Your task to perform on an android device: check android version Image 0: 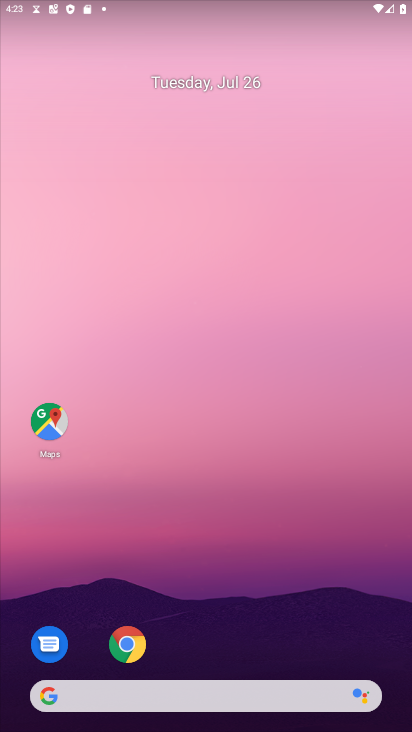
Step 0: drag from (225, 634) to (197, 49)
Your task to perform on an android device: check android version Image 1: 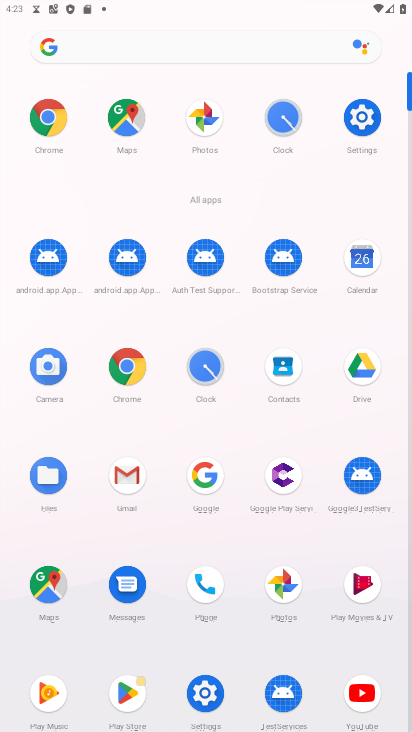
Step 1: click (363, 123)
Your task to perform on an android device: check android version Image 2: 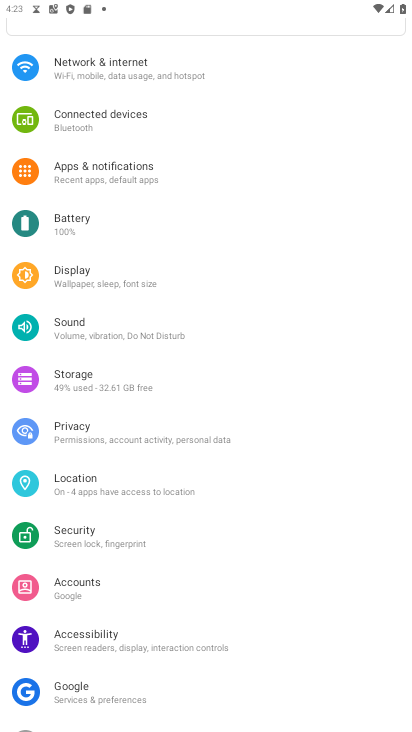
Step 2: drag from (172, 688) to (135, 241)
Your task to perform on an android device: check android version Image 3: 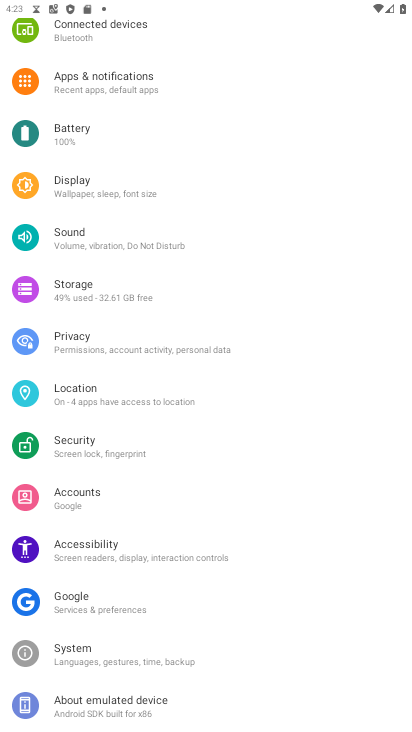
Step 3: click (130, 694)
Your task to perform on an android device: check android version Image 4: 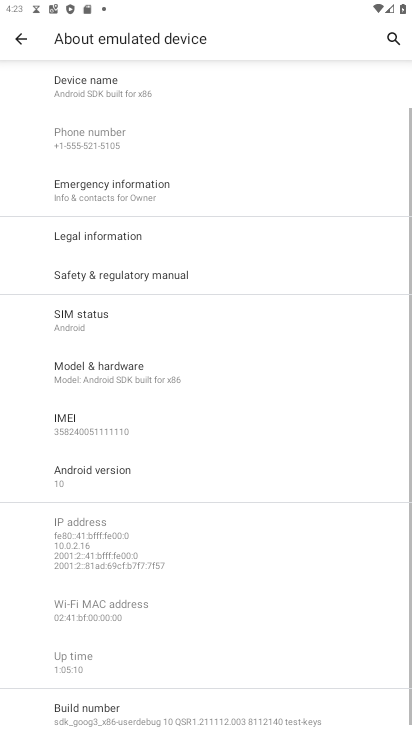
Step 4: click (189, 472)
Your task to perform on an android device: check android version Image 5: 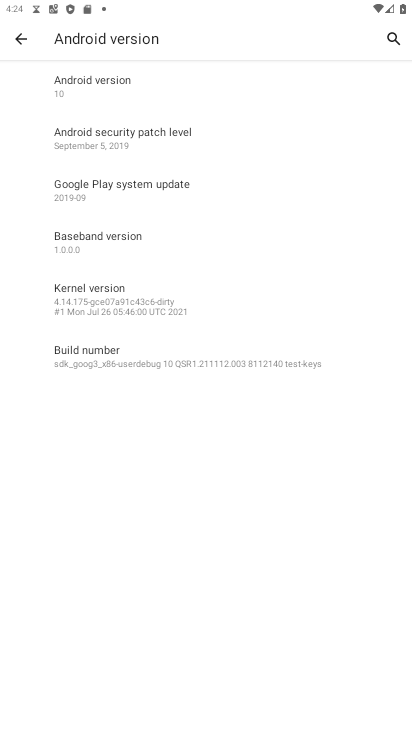
Step 5: task complete